Your task to perform on an android device: Open settings on Google Maps Image 0: 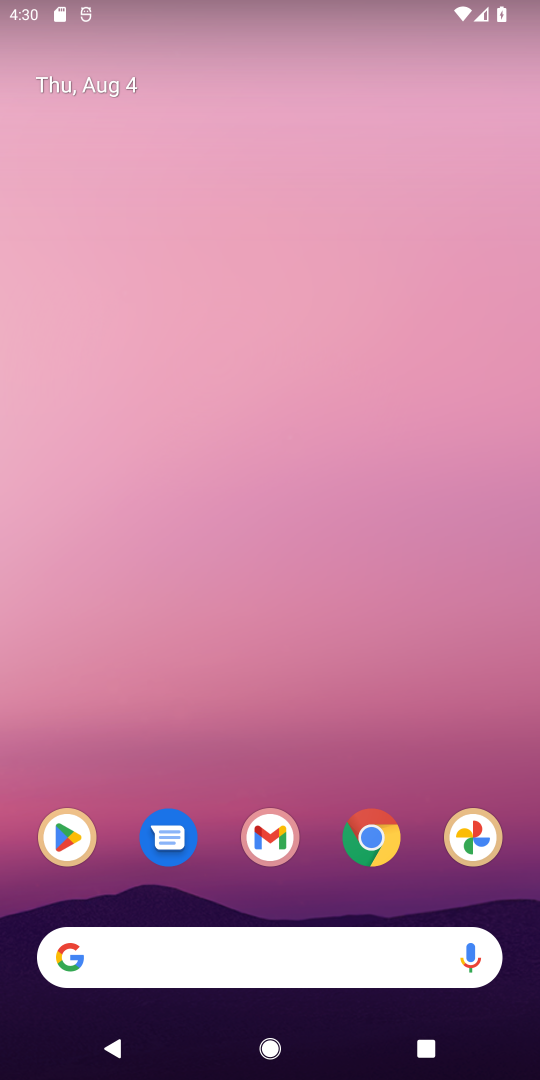
Step 0: drag from (256, 634) to (354, 5)
Your task to perform on an android device: Open settings on Google Maps Image 1: 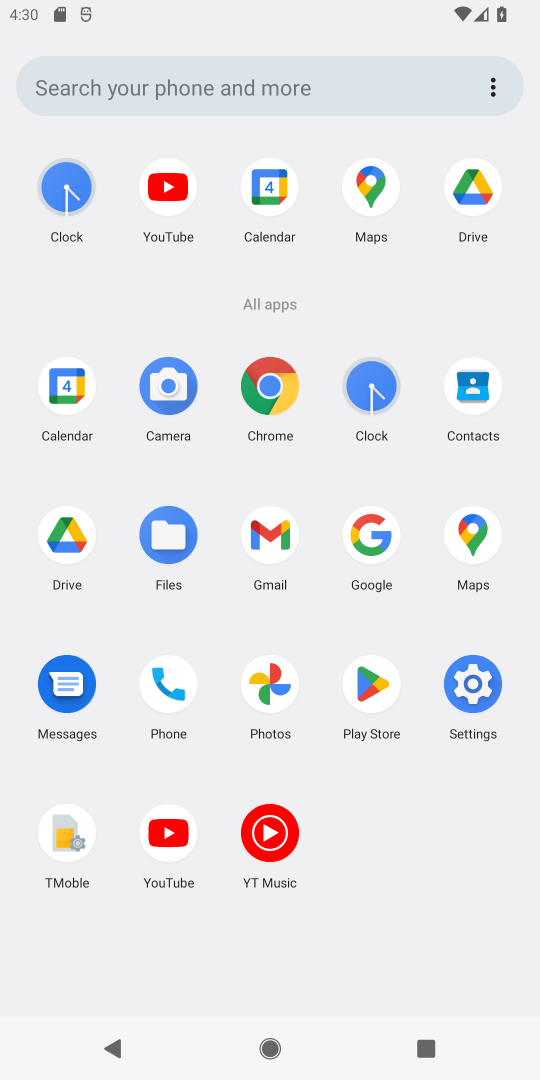
Step 1: click (367, 201)
Your task to perform on an android device: Open settings on Google Maps Image 2: 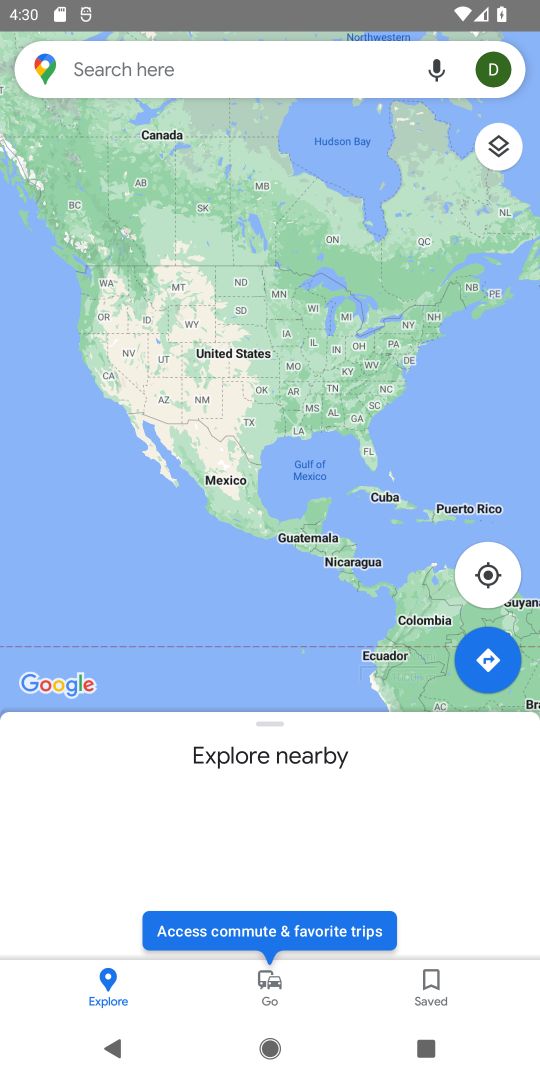
Step 2: click (493, 62)
Your task to perform on an android device: Open settings on Google Maps Image 3: 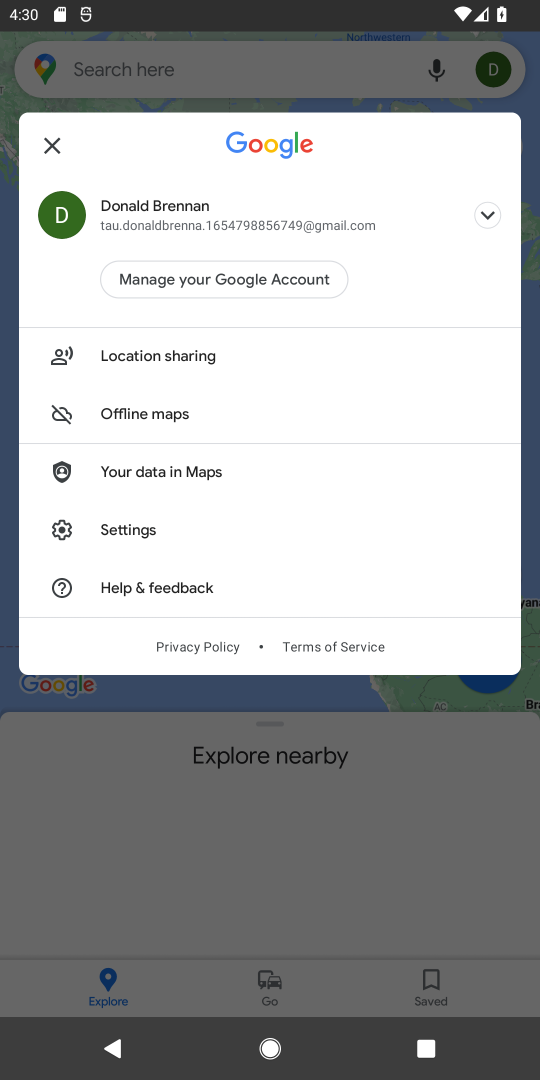
Step 3: click (144, 525)
Your task to perform on an android device: Open settings on Google Maps Image 4: 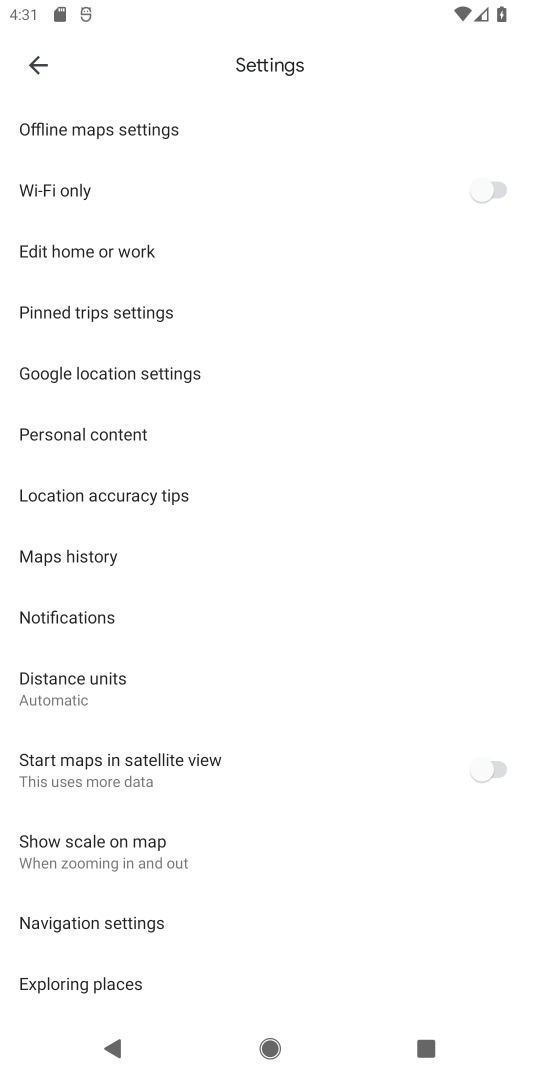
Step 4: task complete